Your task to perform on an android device: open the mobile data screen to see how much data has been used Image 0: 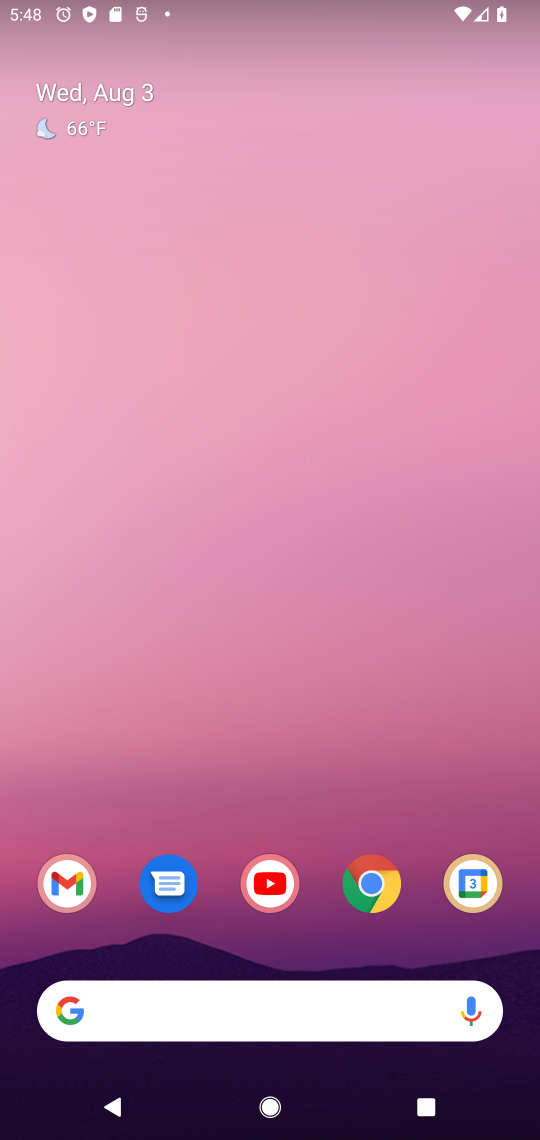
Step 0: drag from (274, 992) to (256, 166)
Your task to perform on an android device: open the mobile data screen to see how much data has been used Image 1: 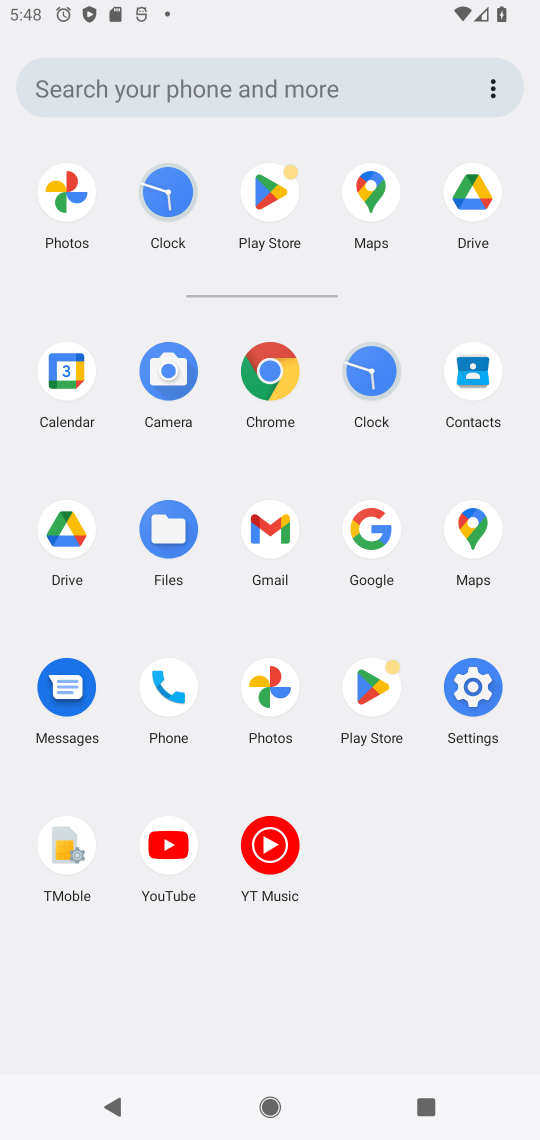
Step 1: click (454, 699)
Your task to perform on an android device: open the mobile data screen to see how much data has been used Image 2: 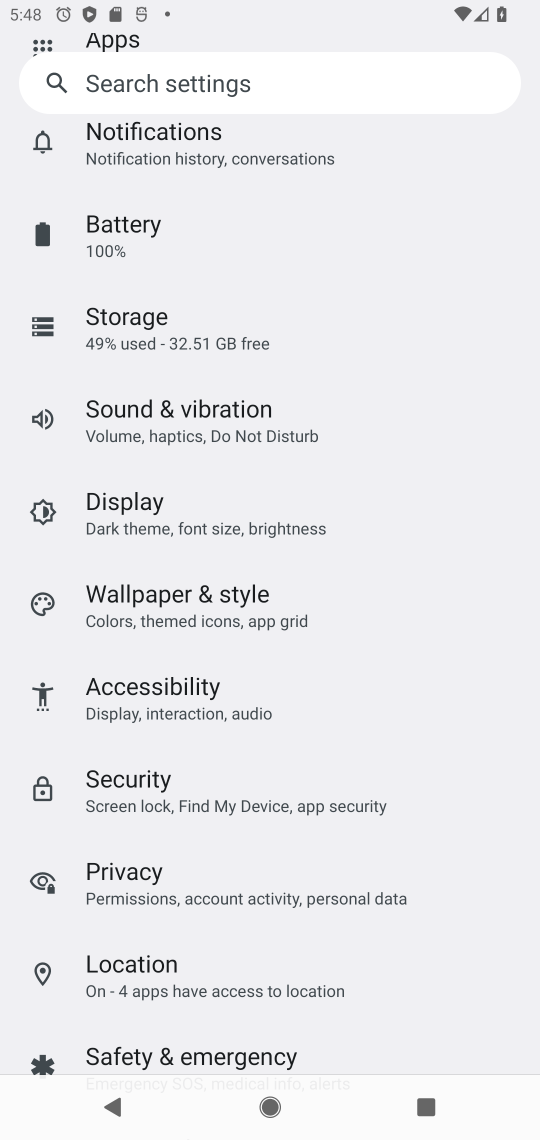
Step 2: drag from (203, 161) to (209, 611)
Your task to perform on an android device: open the mobile data screen to see how much data has been used Image 3: 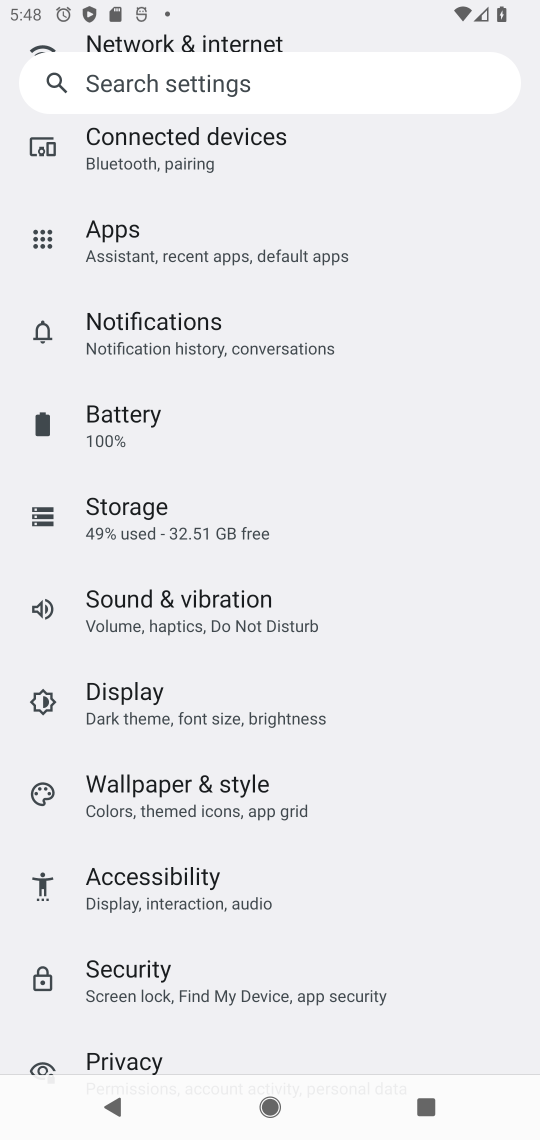
Step 3: drag from (110, 143) to (162, 574)
Your task to perform on an android device: open the mobile data screen to see how much data has been used Image 4: 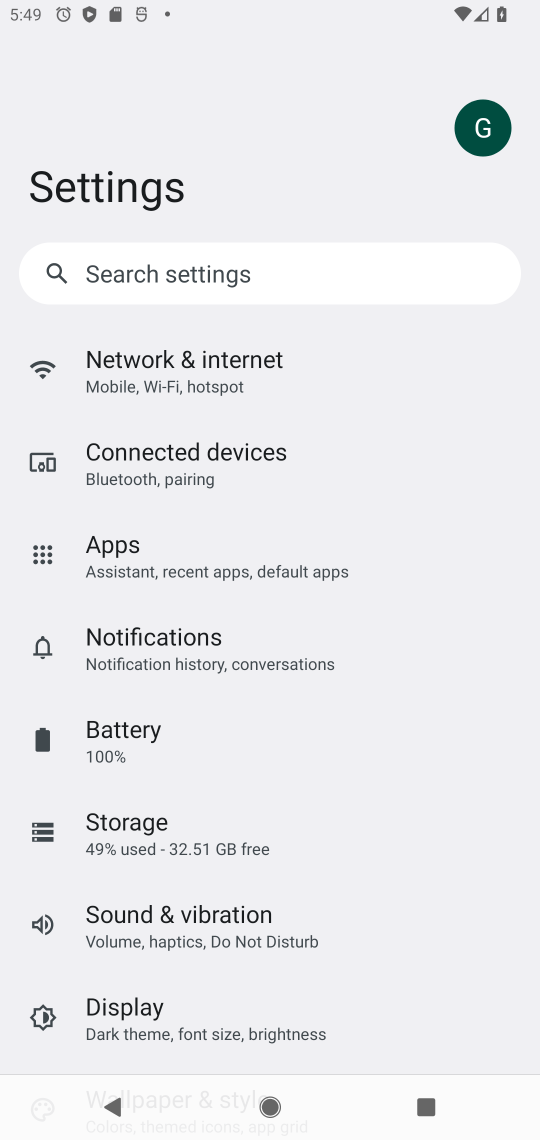
Step 4: click (131, 374)
Your task to perform on an android device: open the mobile data screen to see how much data has been used Image 5: 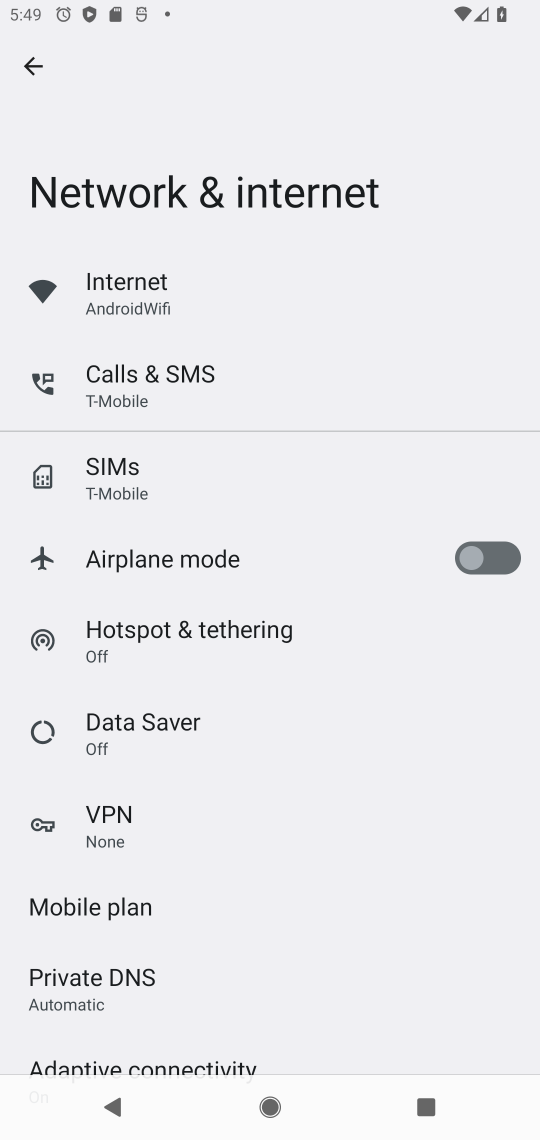
Step 5: click (140, 293)
Your task to perform on an android device: open the mobile data screen to see how much data has been used Image 6: 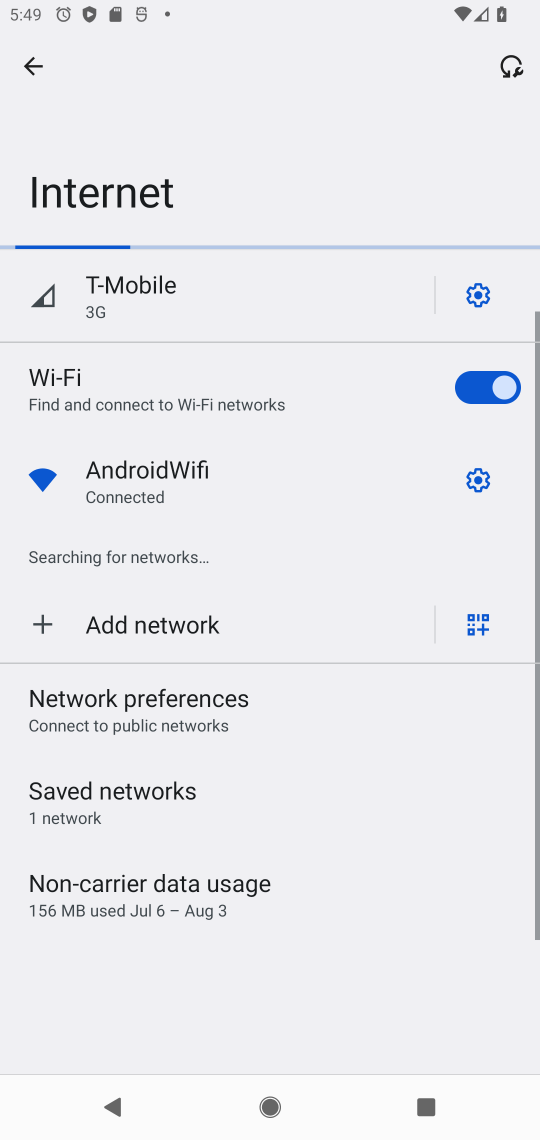
Step 6: click (100, 722)
Your task to perform on an android device: open the mobile data screen to see how much data has been used Image 7: 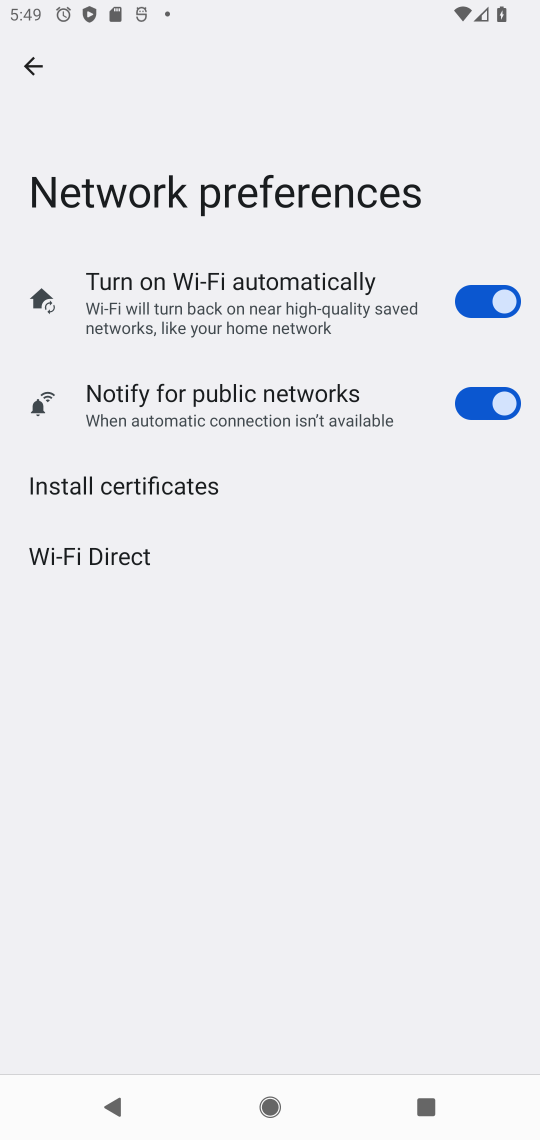
Step 7: click (37, 74)
Your task to perform on an android device: open the mobile data screen to see how much data has been used Image 8: 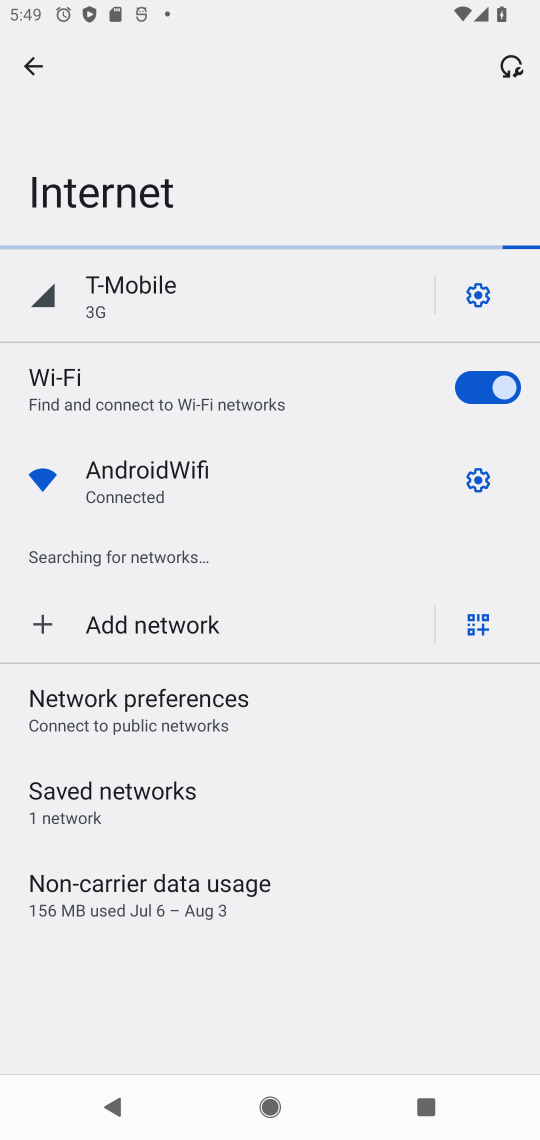
Step 8: drag from (189, 859) to (217, 280)
Your task to perform on an android device: open the mobile data screen to see how much data has been used Image 9: 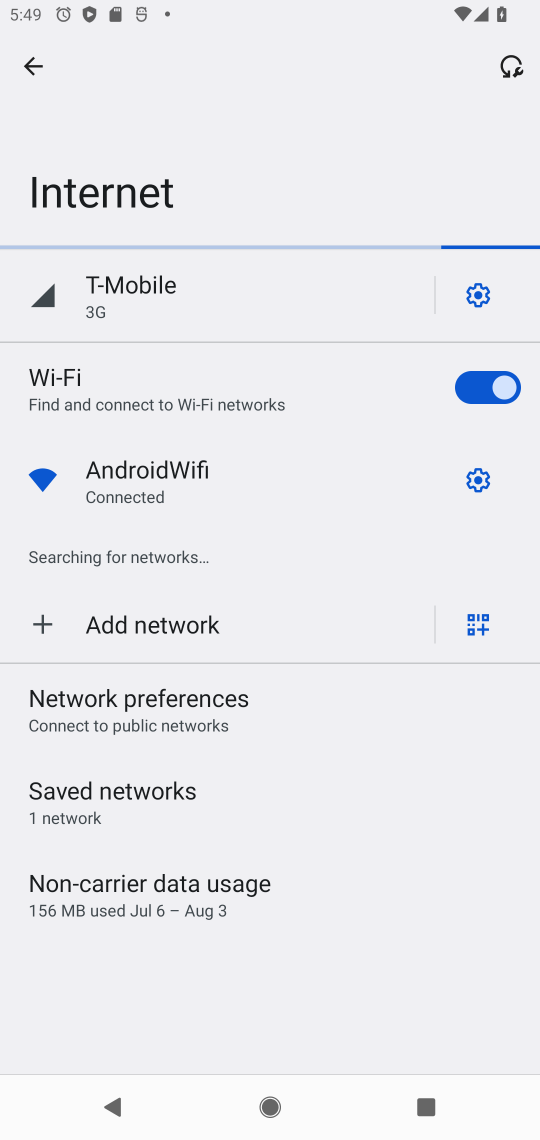
Step 9: click (158, 892)
Your task to perform on an android device: open the mobile data screen to see how much data has been used Image 10: 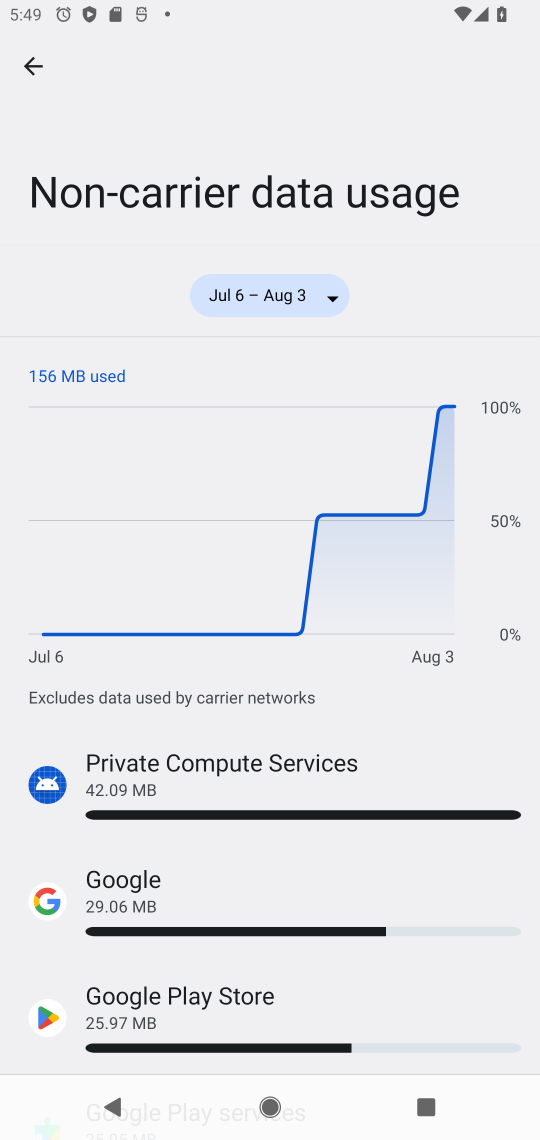
Step 10: task complete